Your task to perform on an android device: Turn off the flashlight Image 0: 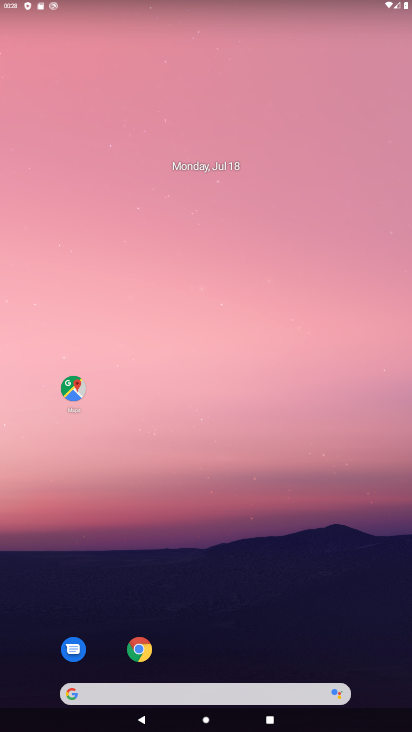
Step 0: drag from (208, 650) to (248, 2)
Your task to perform on an android device: Turn off the flashlight Image 1: 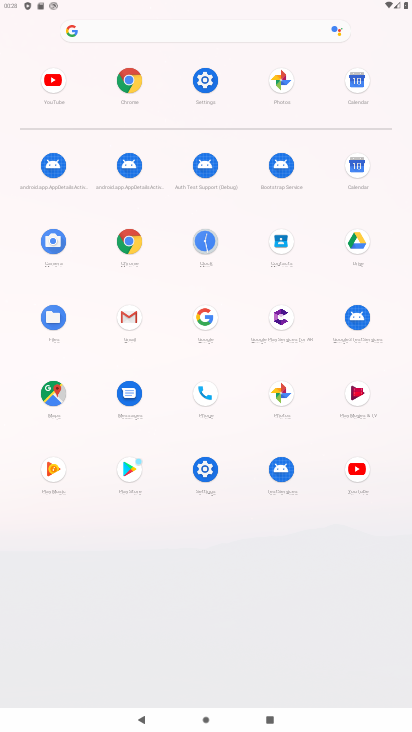
Step 1: task complete